Your task to perform on an android device: Set the phone to "Do not disturb". Image 0: 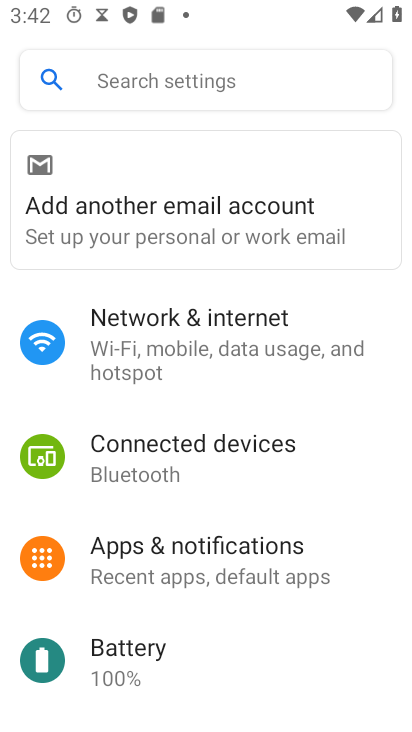
Step 0: drag from (182, 544) to (160, 261)
Your task to perform on an android device: Set the phone to "Do not disturb". Image 1: 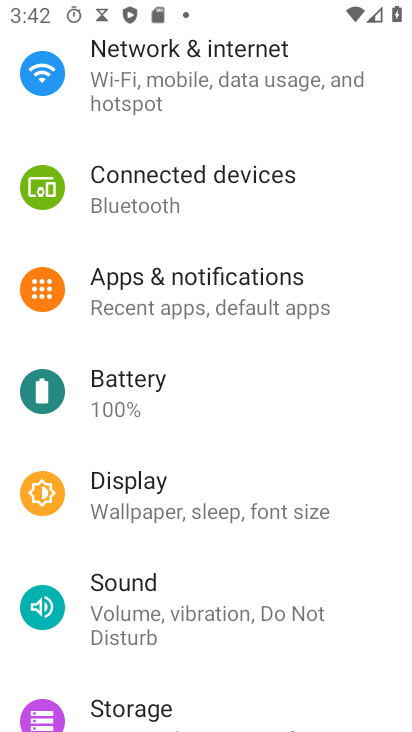
Step 1: drag from (194, 527) to (184, 274)
Your task to perform on an android device: Set the phone to "Do not disturb". Image 2: 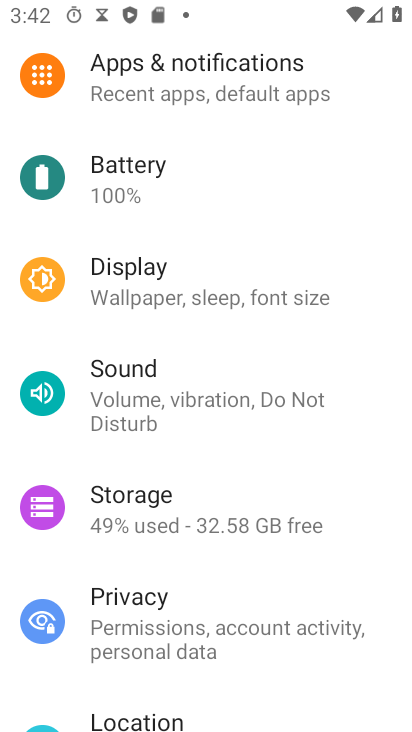
Step 2: click (148, 409)
Your task to perform on an android device: Set the phone to "Do not disturb". Image 3: 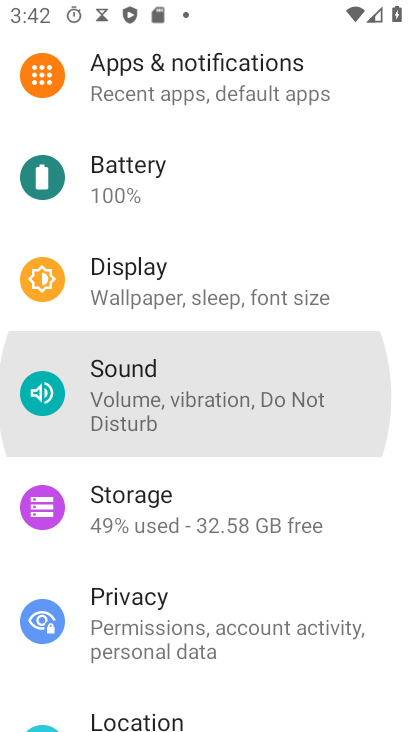
Step 3: click (148, 409)
Your task to perform on an android device: Set the phone to "Do not disturb". Image 4: 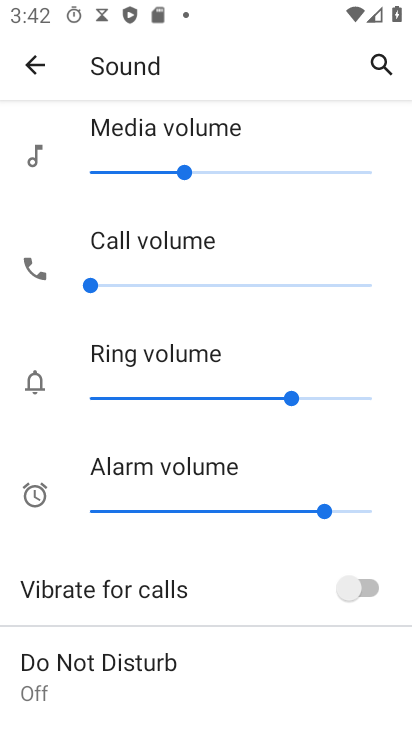
Step 4: drag from (100, 599) to (100, 325)
Your task to perform on an android device: Set the phone to "Do not disturb". Image 5: 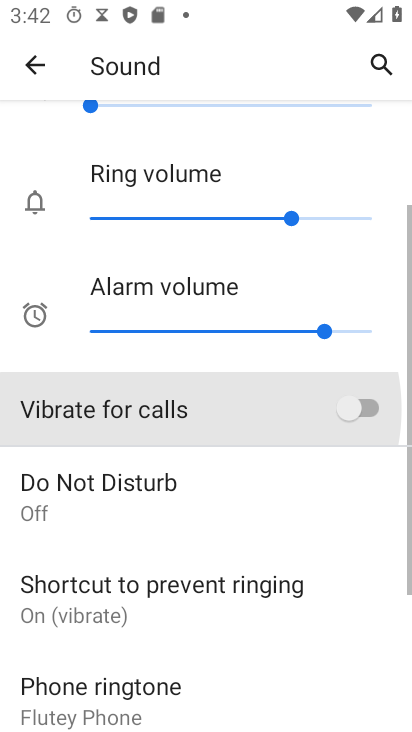
Step 5: drag from (184, 496) to (222, 282)
Your task to perform on an android device: Set the phone to "Do not disturb". Image 6: 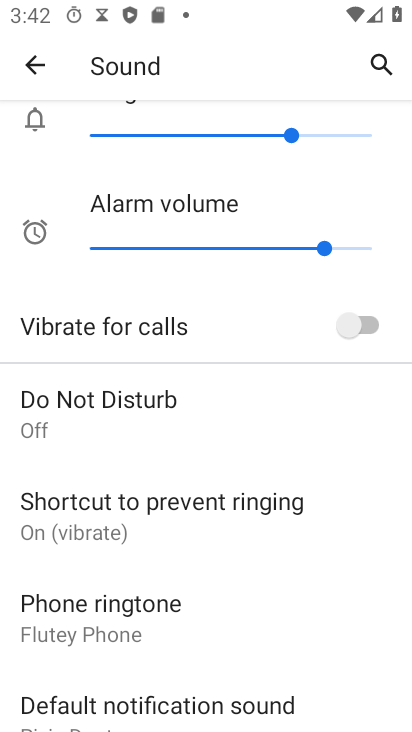
Step 6: click (76, 396)
Your task to perform on an android device: Set the phone to "Do not disturb". Image 7: 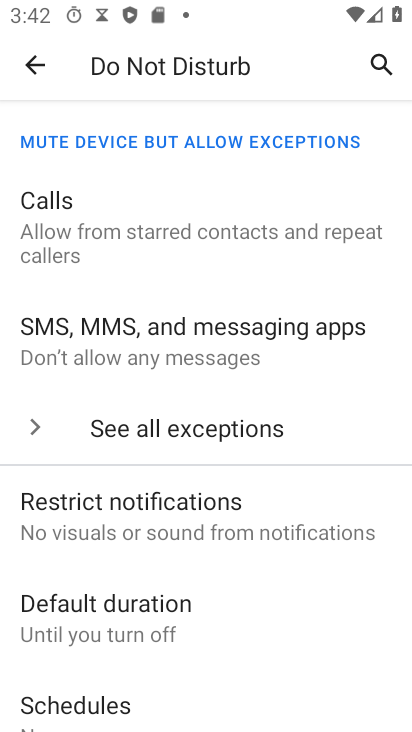
Step 7: drag from (69, 516) to (126, 210)
Your task to perform on an android device: Set the phone to "Do not disturb". Image 8: 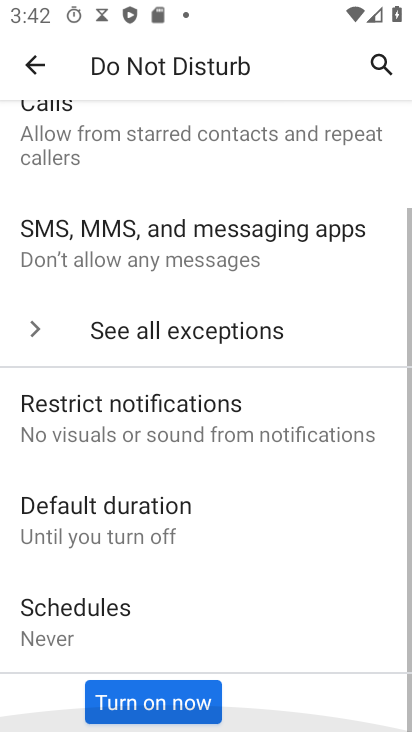
Step 8: drag from (182, 429) to (175, 167)
Your task to perform on an android device: Set the phone to "Do not disturb". Image 9: 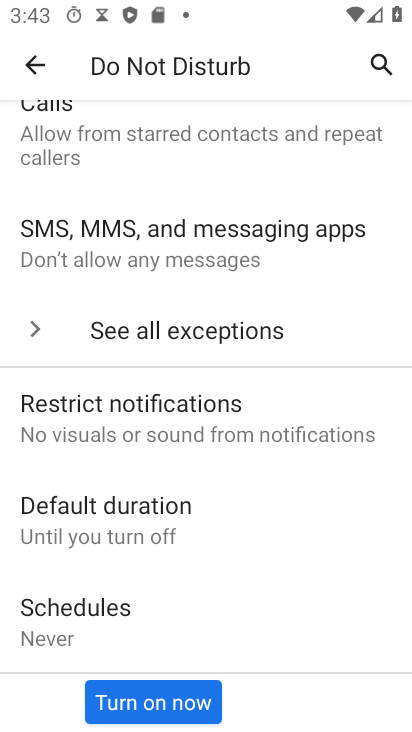
Step 9: click (160, 706)
Your task to perform on an android device: Set the phone to "Do not disturb". Image 10: 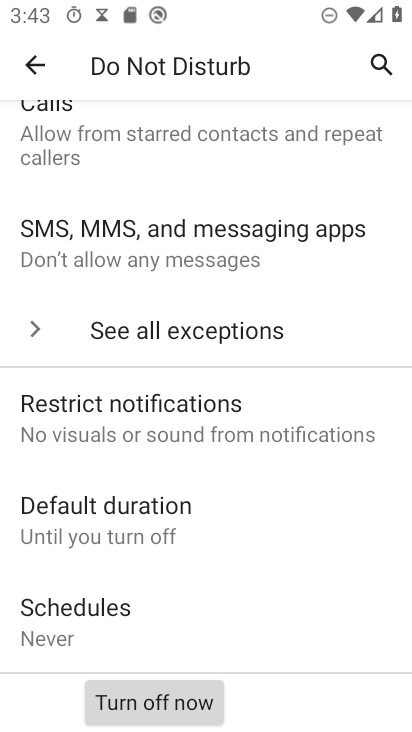
Step 10: task complete